Your task to perform on an android device: open sync settings in chrome Image 0: 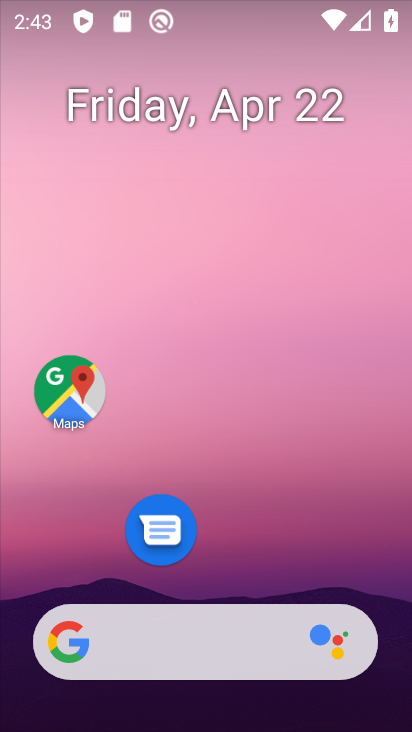
Step 0: drag from (217, 95) to (186, 9)
Your task to perform on an android device: open sync settings in chrome Image 1: 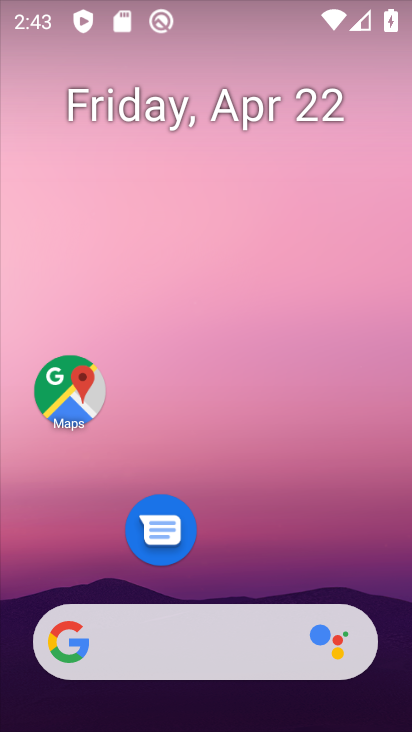
Step 1: click (199, 28)
Your task to perform on an android device: open sync settings in chrome Image 2: 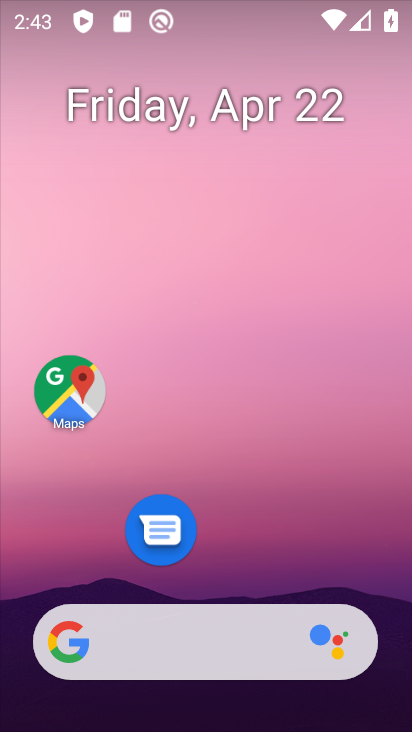
Step 2: drag from (263, 559) to (172, 2)
Your task to perform on an android device: open sync settings in chrome Image 3: 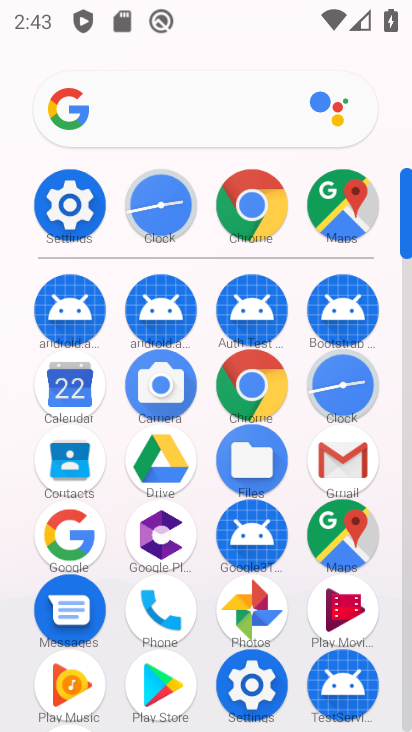
Step 3: click (258, 211)
Your task to perform on an android device: open sync settings in chrome Image 4: 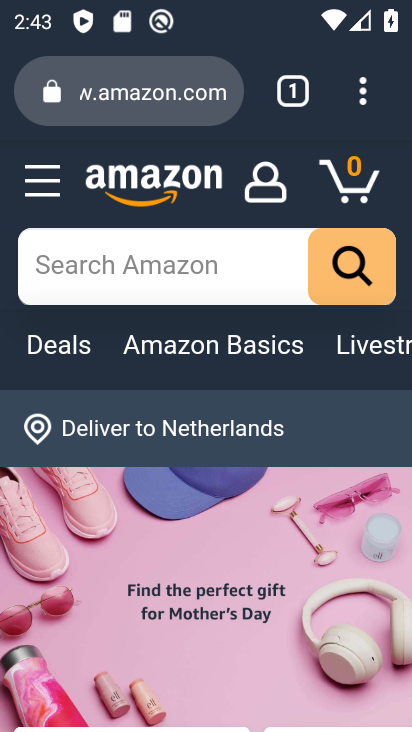
Step 4: click (357, 102)
Your task to perform on an android device: open sync settings in chrome Image 5: 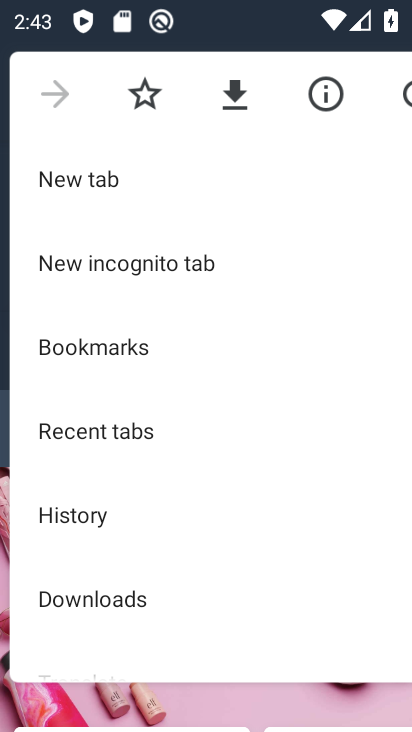
Step 5: drag from (210, 349) to (203, 79)
Your task to perform on an android device: open sync settings in chrome Image 6: 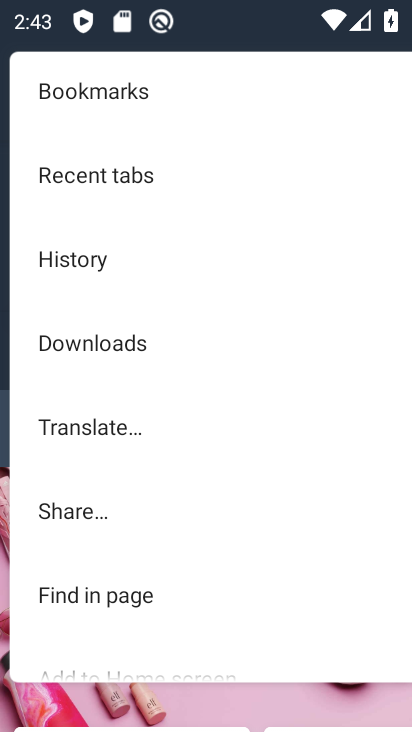
Step 6: drag from (119, 434) to (152, 100)
Your task to perform on an android device: open sync settings in chrome Image 7: 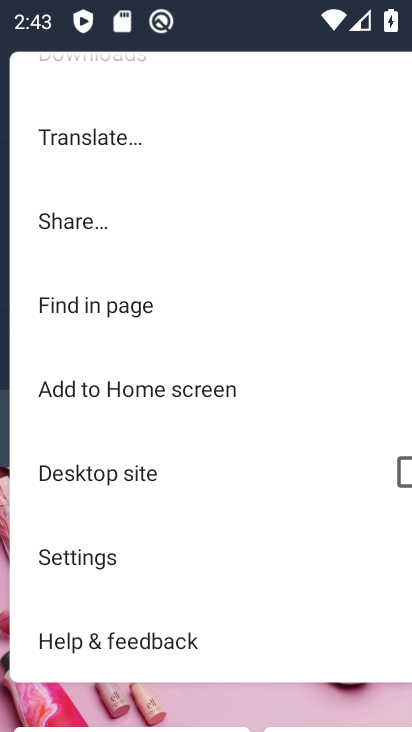
Step 7: click (87, 557)
Your task to perform on an android device: open sync settings in chrome Image 8: 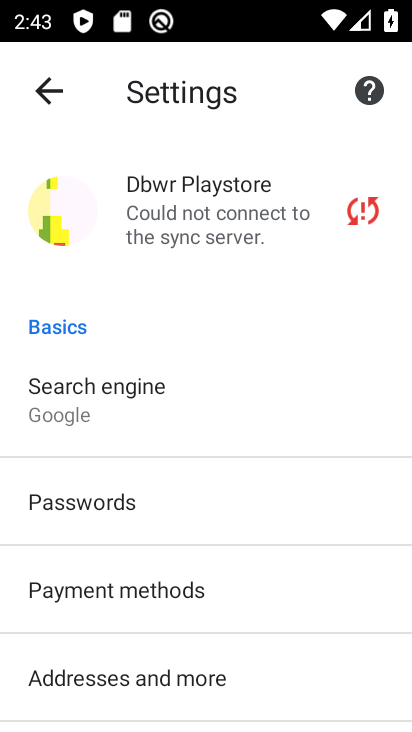
Step 8: click (183, 212)
Your task to perform on an android device: open sync settings in chrome Image 9: 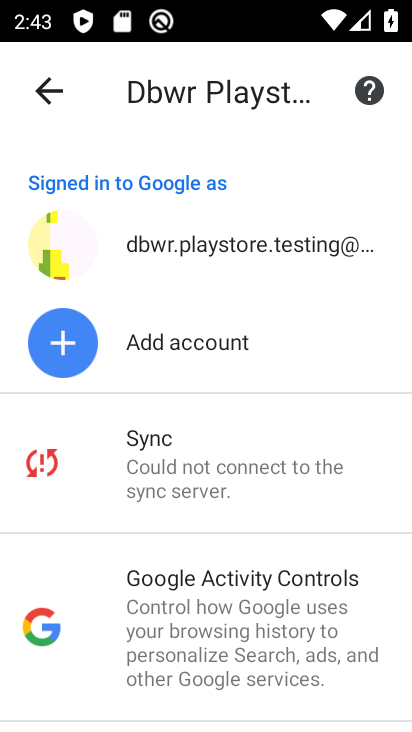
Step 9: click (139, 460)
Your task to perform on an android device: open sync settings in chrome Image 10: 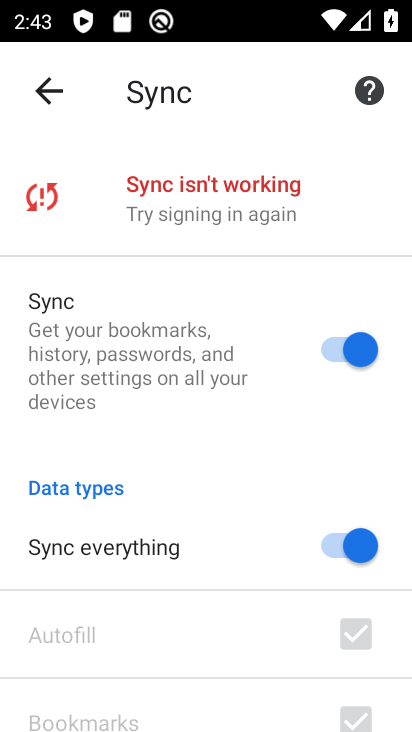
Step 10: task complete